Your task to perform on an android device: change notifications settings Image 0: 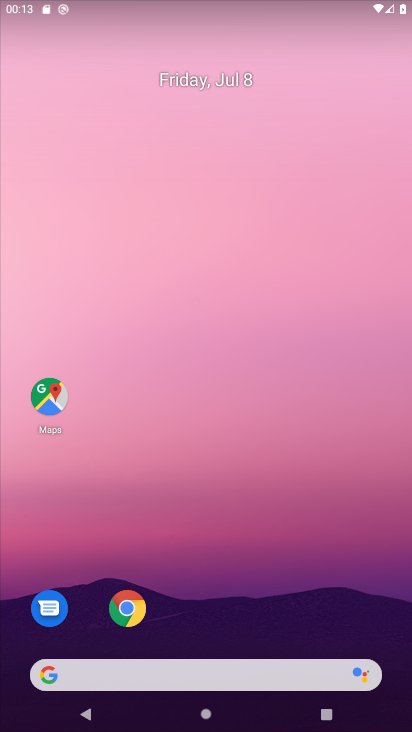
Step 0: drag from (265, 618) to (263, 289)
Your task to perform on an android device: change notifications settings Image 1: 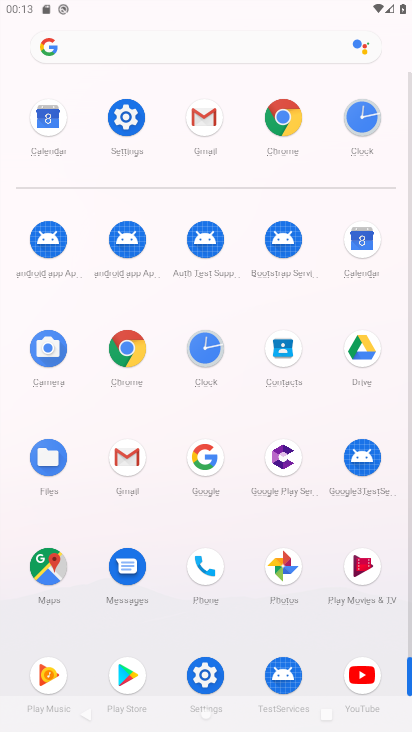
Step 1: click (130, 105)
Your task to perform on an android device: change notifications settings Image 2: 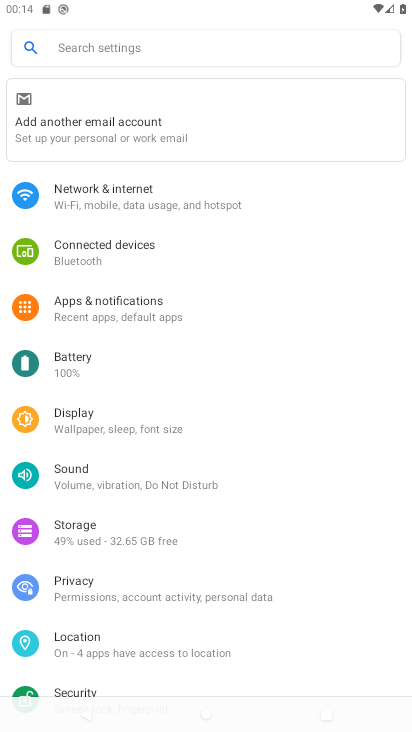
Step 2: click (121, 292)
Your task to perform on an android device: change notifications settings Image 3: 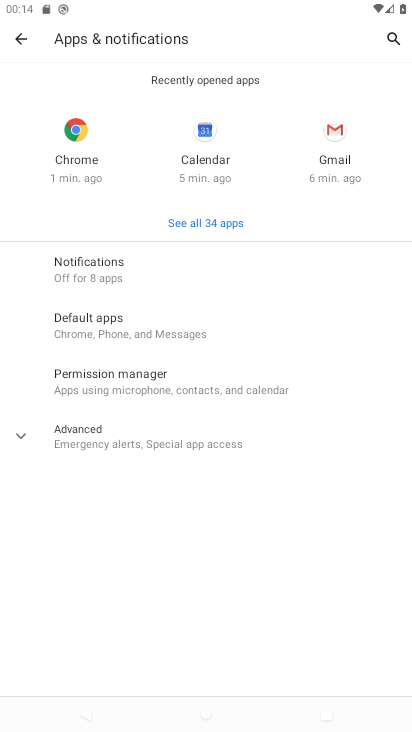
Step 3: click (143, 255)
Your task to perform on an android device: change notifications settings Image 4: 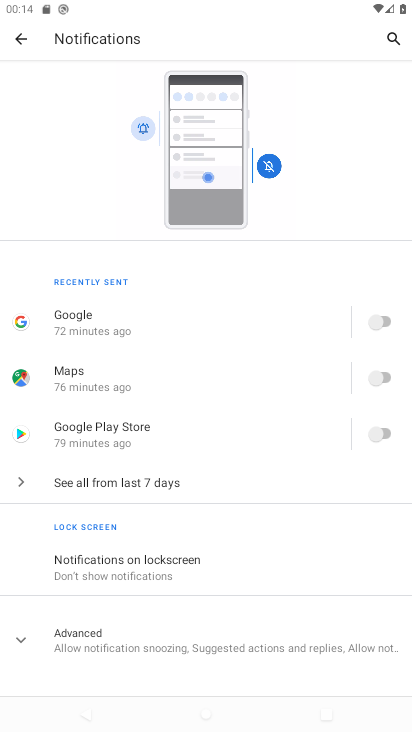
Step 4: click (145, 486)
Your task to perform on an android device: change notifications settings Image 5: 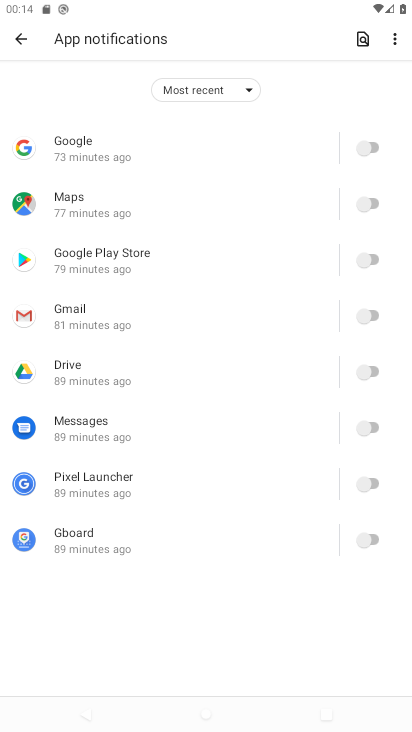
Step 5: click (367, 142)
Your task to perform on an android device: change notifications settings Image 6: 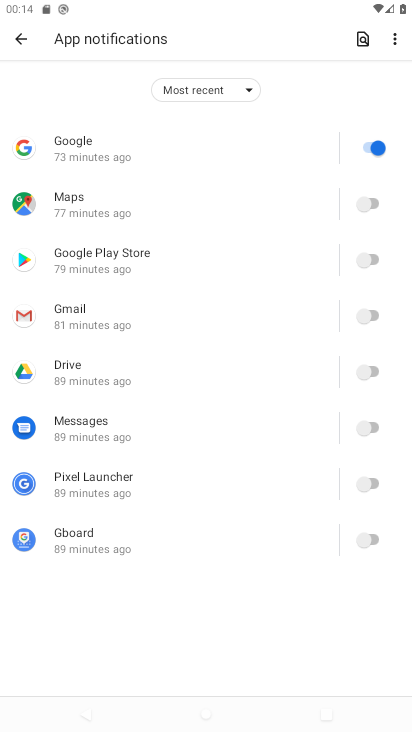
Step 6: click (361, 207)
Your task to perform on an android device: change notifications settings Image 7: 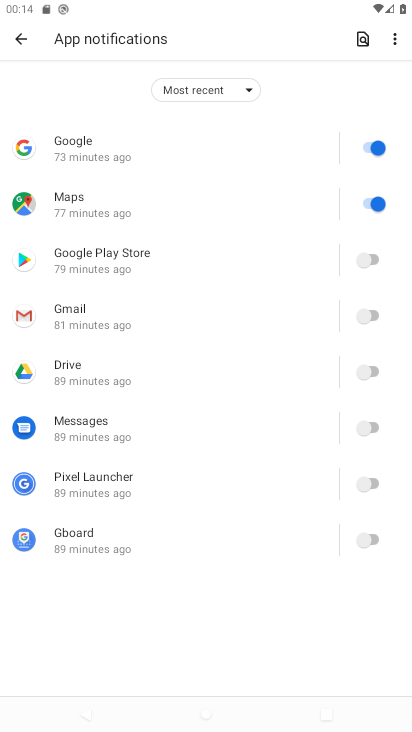
Step 7: click (371, 254)
Your task to perform on an android device: change notifications settings Image 8: 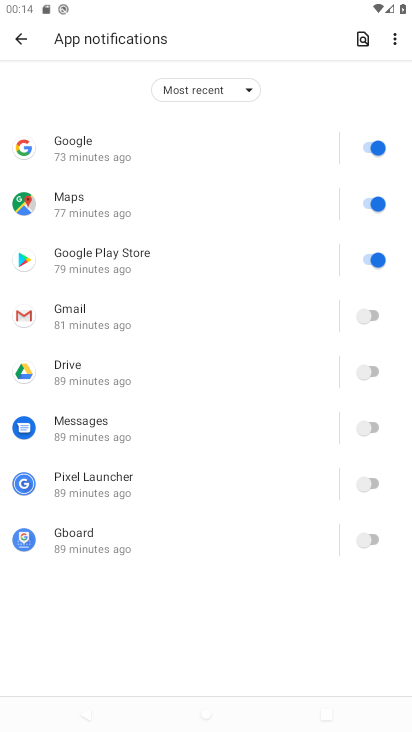
Step 8: click (369, 317)
Your task to perform on an android device: change notifications settings Image 9: 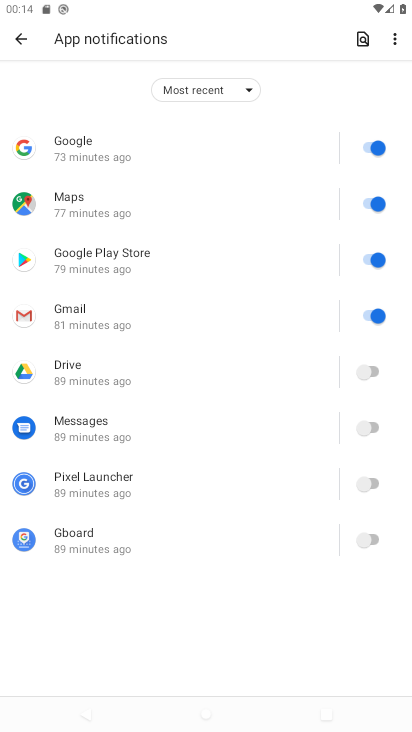
Step 9: click (371, 373)
Your task to perform on an android device: change notifications settings Image 10: 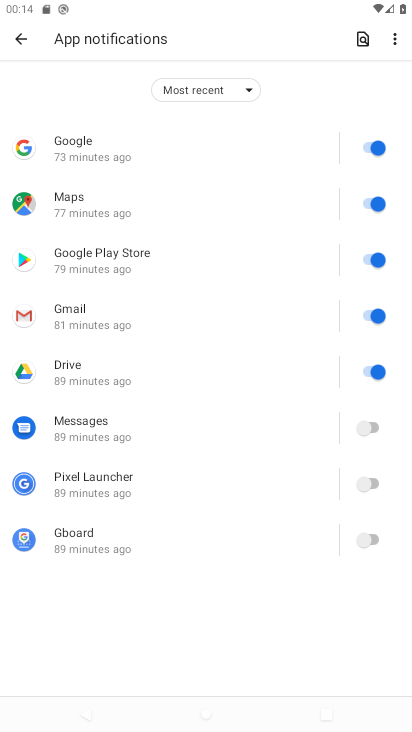
Step 10: click (367, 421)
Your task to perform on an android device: change notifications settings Image 11: 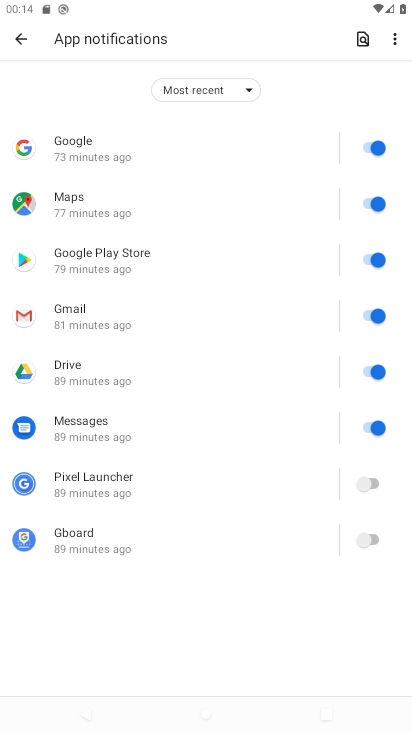
Step 11: click (378, 481)
Your task to perform on an android device: change notifications settings Image 12: 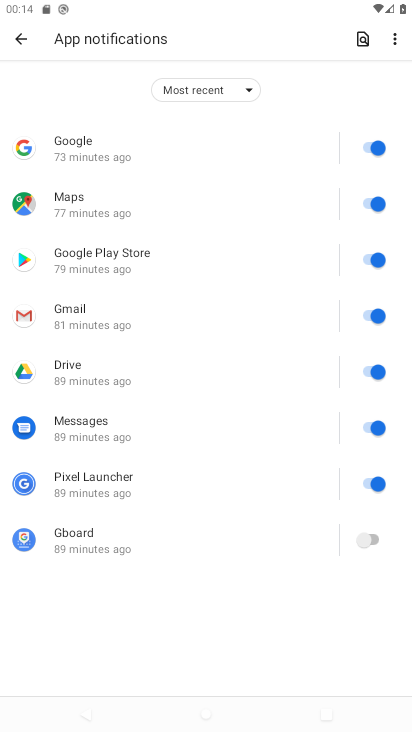
Step 12: click (368, 539)
Your task to perform on an android device: change notifications settings Image 13: 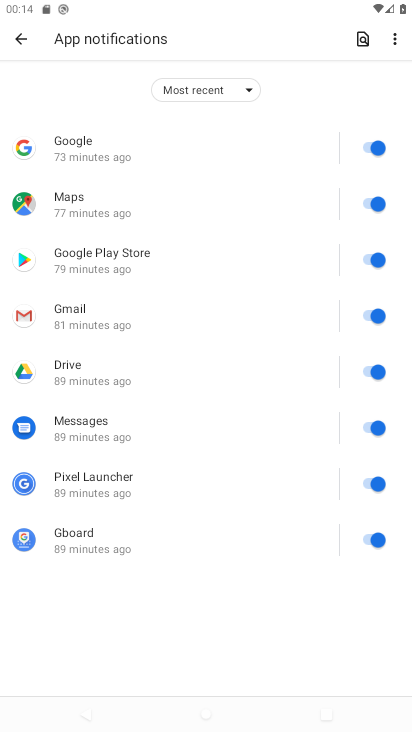
Step 13: task complete